Your task to perform on an android device: Open Google Maps Image 0: 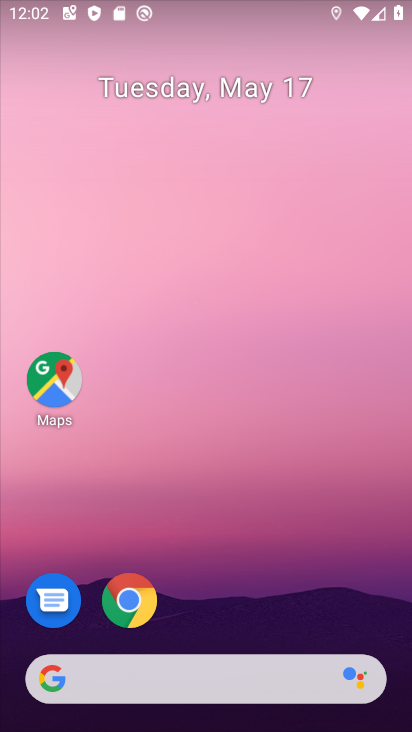
Step 0: click (44, 374)
Your task to perform on an android device: Open Google Maps Image 1: 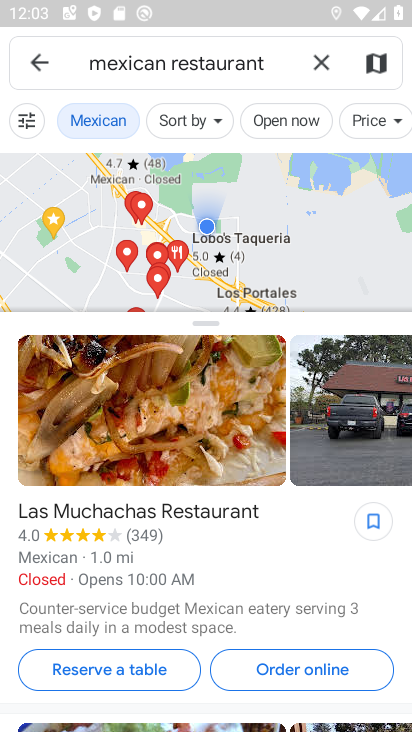
Step 1: task complete